Your task to perform on an android device: Open privacy settings Image 0: 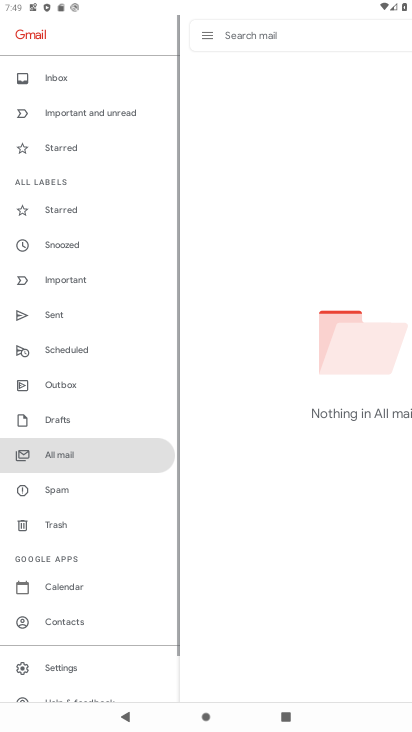
Step 0: press home button
Your task to perform on an android device: Open privacy settings Image 1: 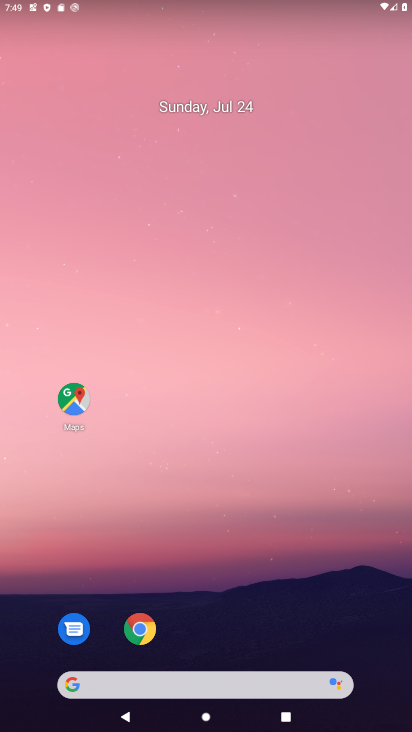
Step 1: drag from (252, 647) to (371, 75)
Your task to perform on an android device: Open privacy settings Image 2: 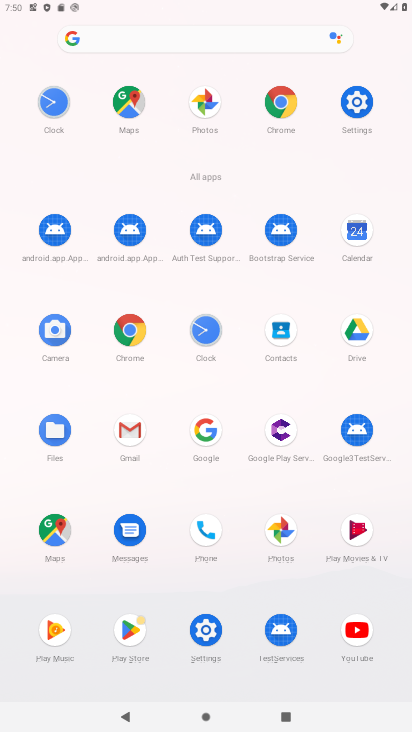
Step 2: click (349, 121)
Your task to perform on an android device: Open privacy settings Image 3: 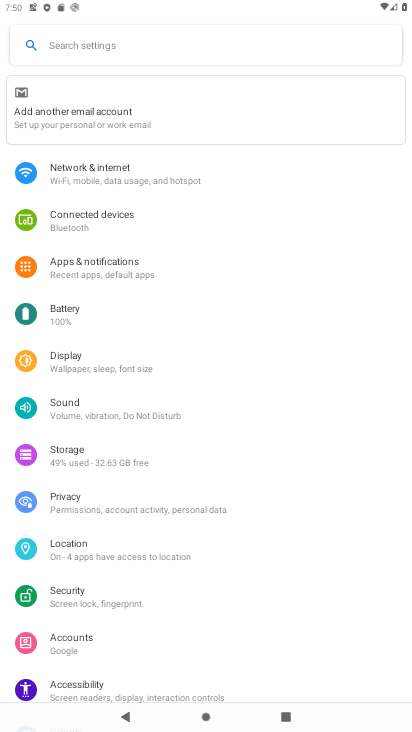
Step 3: click (87, 499)
Your task to perform on an android device: Open privacy settings Image 4: 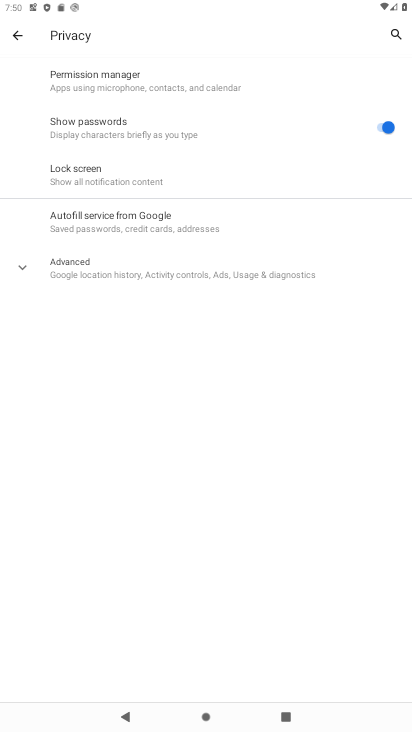
Step 4: task complete